Your task to perform on an android device: uninstall "Google Play Music" Image 0: 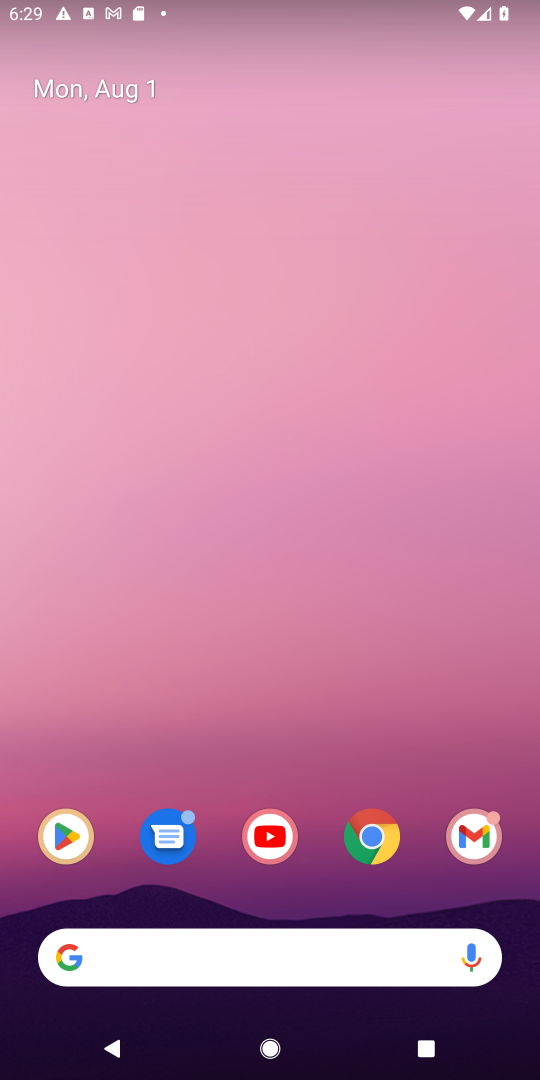
Step 0: press home button
Your task to perform on an android device: uninstall "Google Play Music" Image 1: 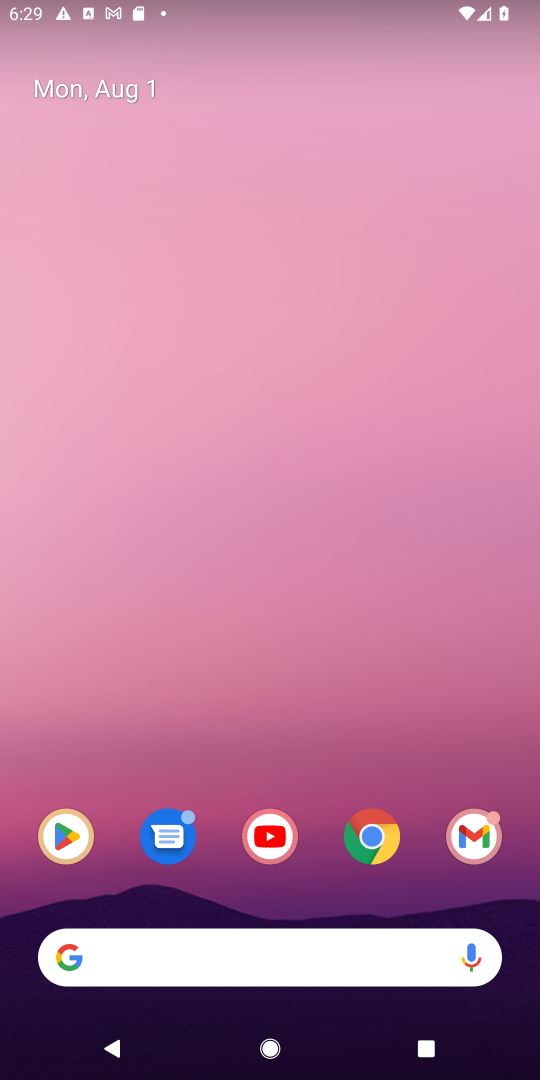
Step 1: click (62, 842)
Your task to perform on an android device: uninstall "Google Play Music" Image 2: 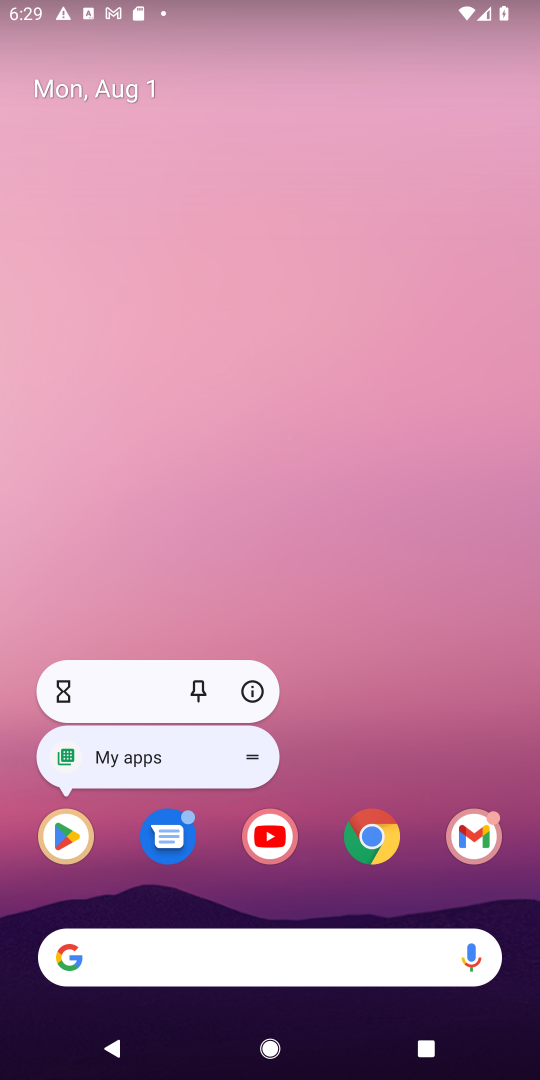
Step 2: click (62, 841)
Your task to perform on an android device: uninstall "Google Play Music" Image 3: 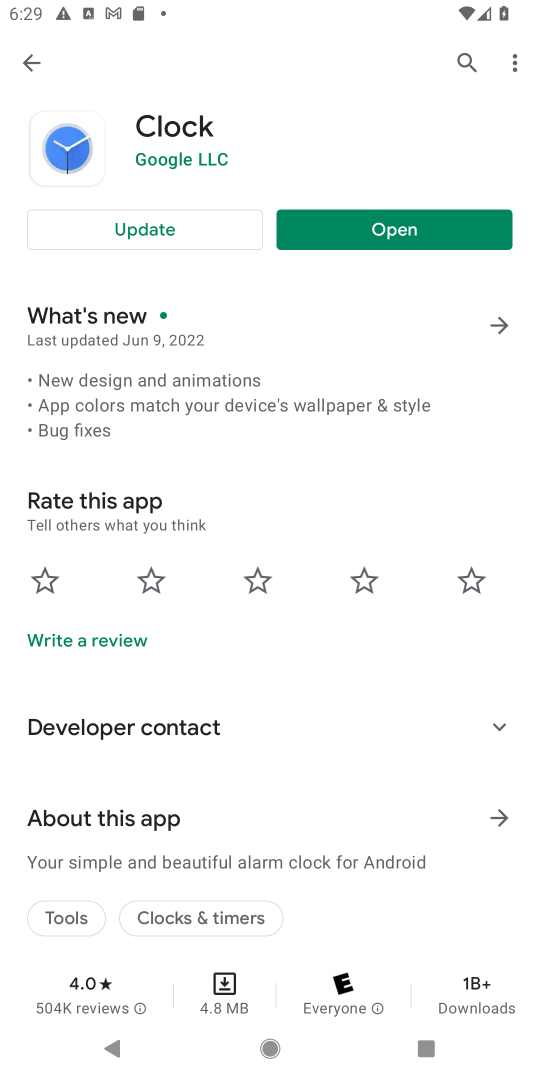
Step 3: click (460, 61)
Your task to perform on an android device: uninstall "Google Play Music" Image 4: 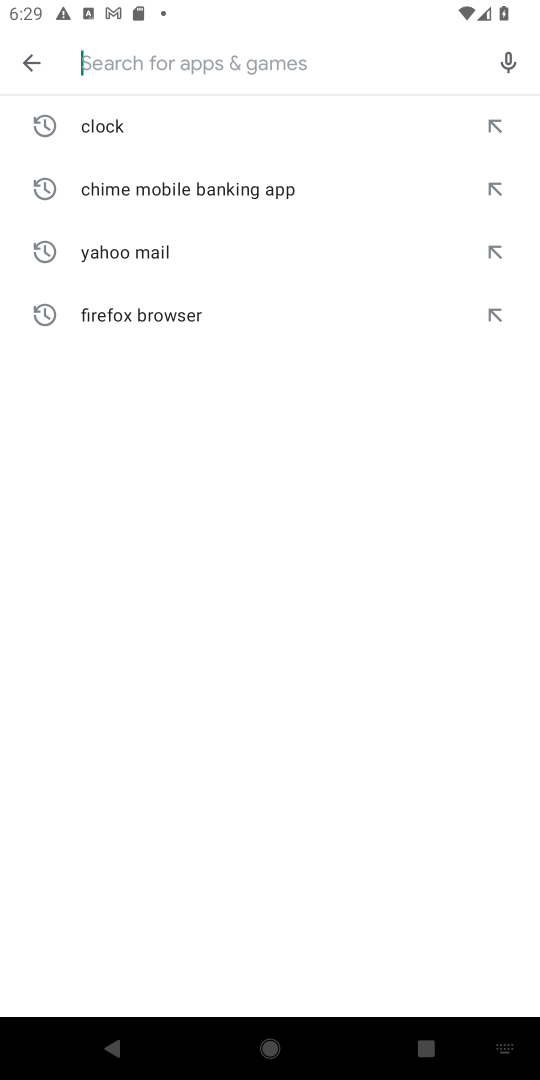
Step 4: type "Google Play Music"
Your task to perform on an android device: uninstall "Google Play Music" Image 5: 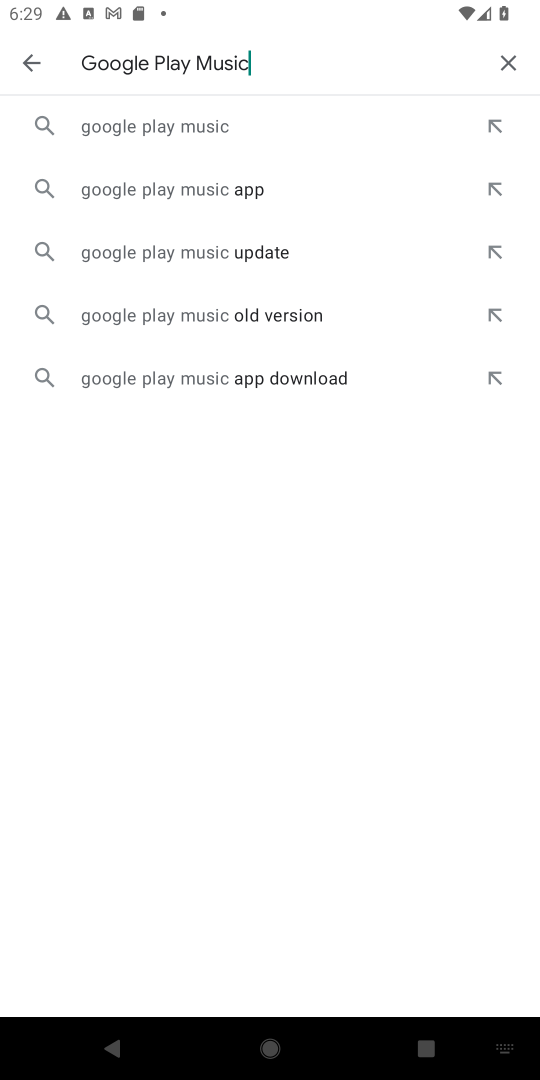
Step 5: click (193, 125)
Your task to perform on an android device: uninstall "Google Play Music" Image 6: 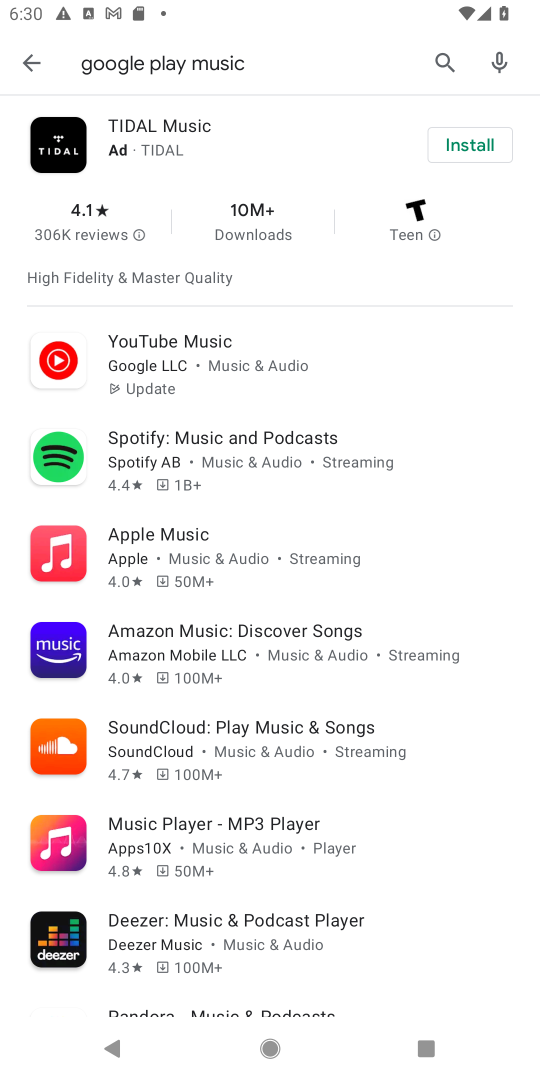
Step 6: task complete